Your task to perform on an android device: check storage Image 0: 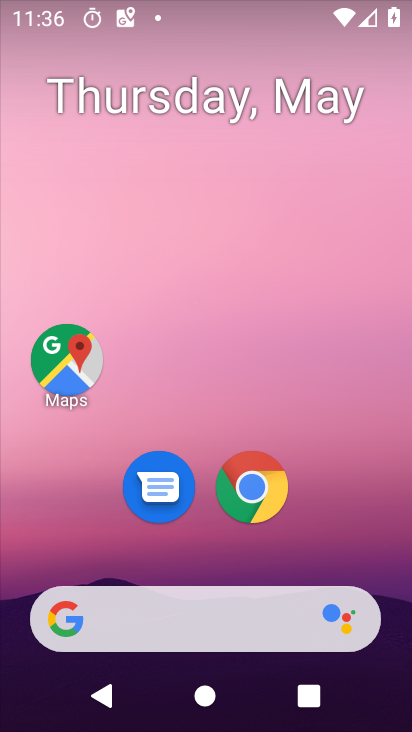
Step 0: drag from (308, 554) to (258, 71)
Your task to perform on an android device: check storage Image 1: 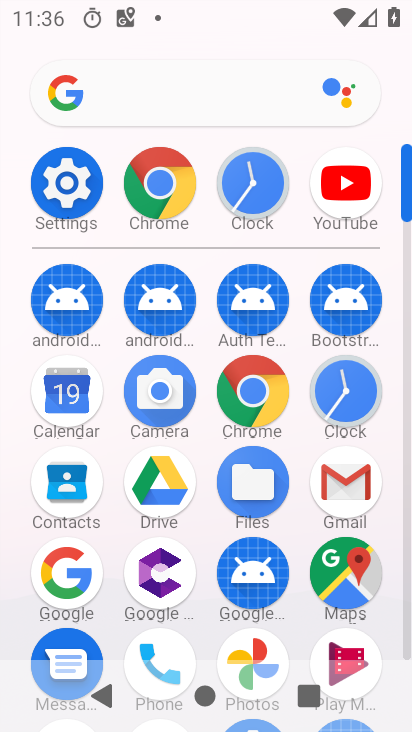
Step 1: click (82, 195)
Your task to perform on an android device: check storage Image 2: 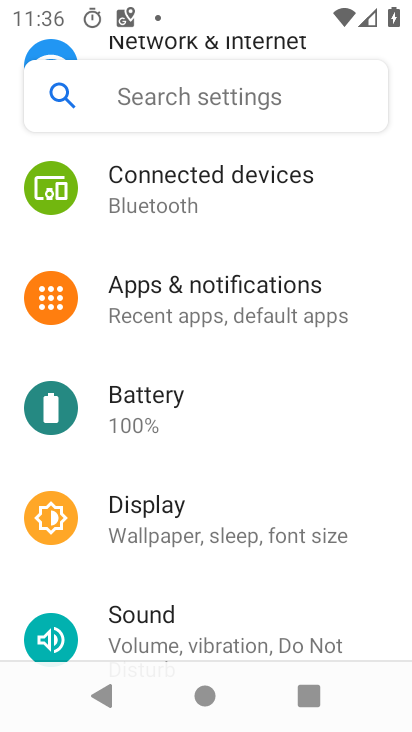
Step 2: drag from (250, 574) to (275, 263)
Your task to perform on an android device: check storage Image 3: 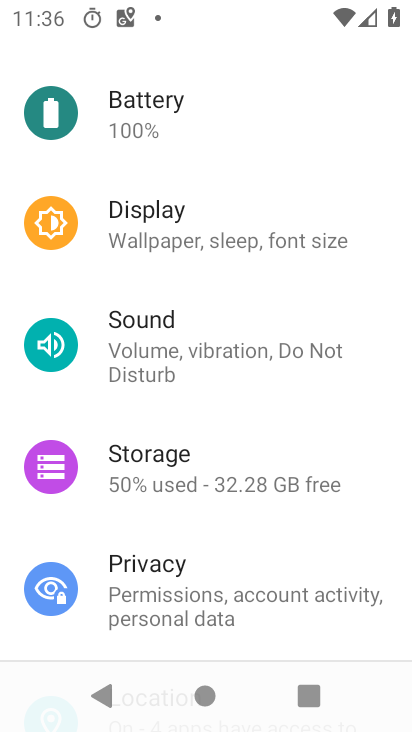
Step 3: drag from (255, 565) to (275, 259)
Your task to perform on an android device: check storage Image 4: 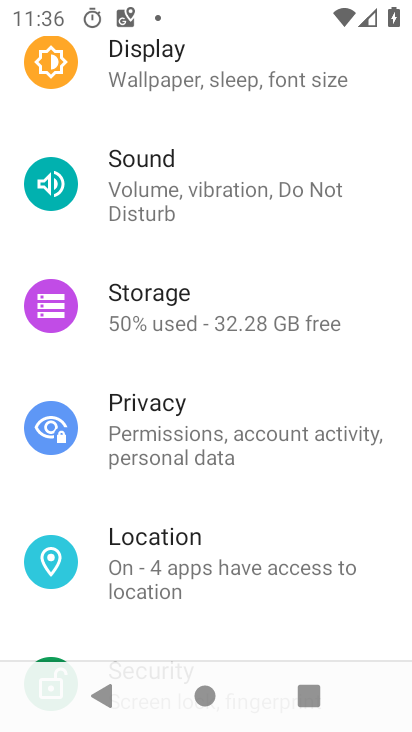
Step 4: drag from (255, 520) to (271, 217)
Your task to perform on an android device: check storage Image 5: 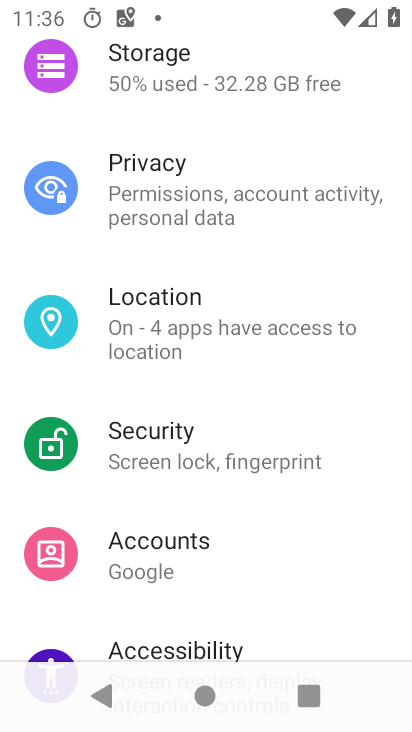
Step 5: drag from (265, 143) to (298, 604)
Your task to perform on an android device: check storage Image 6: 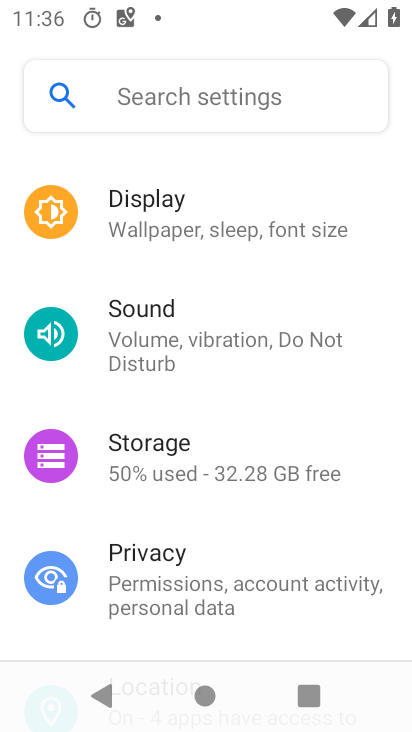
Step 6: drag from (284, 243) to (289, 477)
Your task to perform on an android device: check storage Image 7: 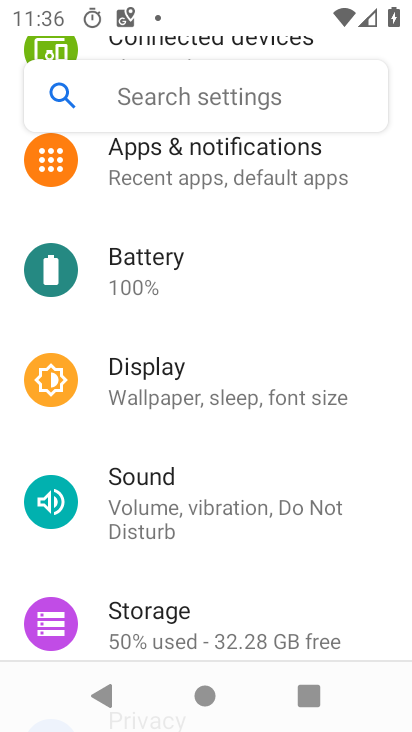
Step 7: click (244, 619)
Your task to perform on an android device: check storage Image 8: 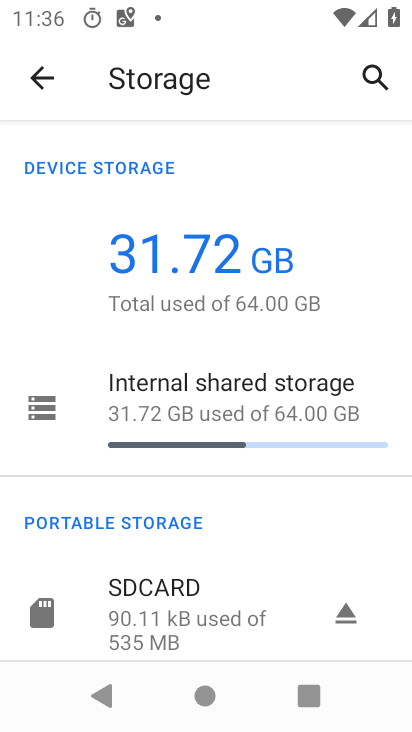
Step 8: task complete